Your task to perform on an android device: Search for vegetarian restaurants on Maps Image 0: 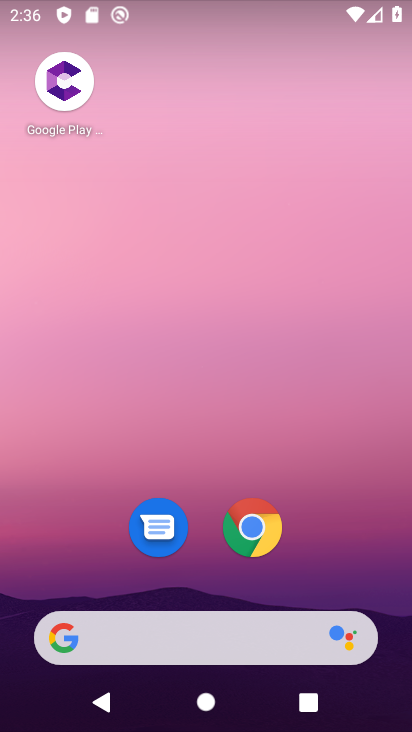
Step 0: drag from (247, 711) to (114, 155)
Your task to perform on an android device: Search for vegetarian restaurants on Maps Image 1: 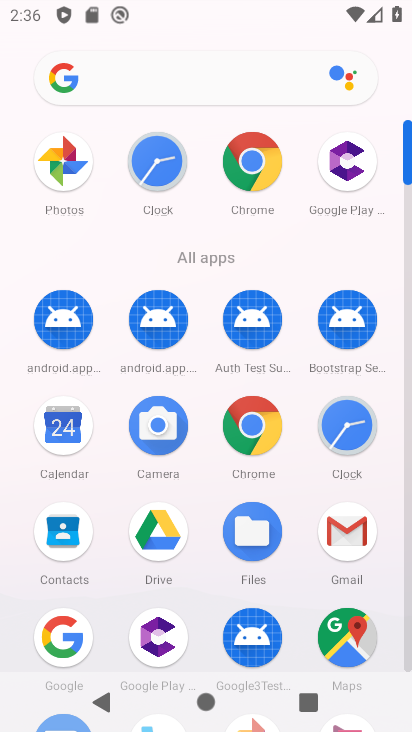
Step 1: click (361, 649)
Your task to perform on an android device: Search for vegetarian restaurants on Maps Image 2: 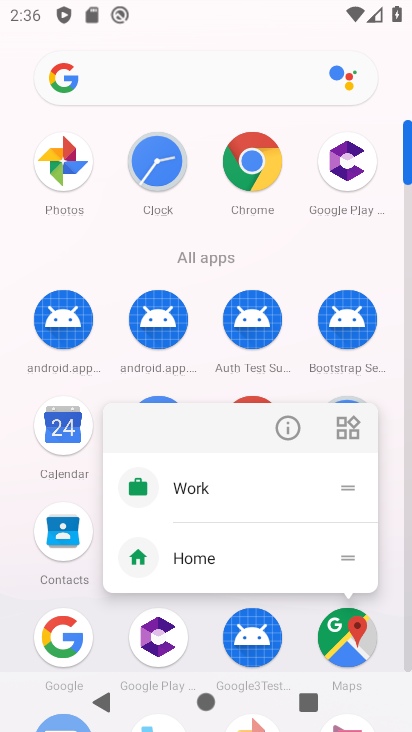
Step 2: click (350, 642)
Your task to perform on an android device: Search for vegetarian restaurants on Maps Image 3: 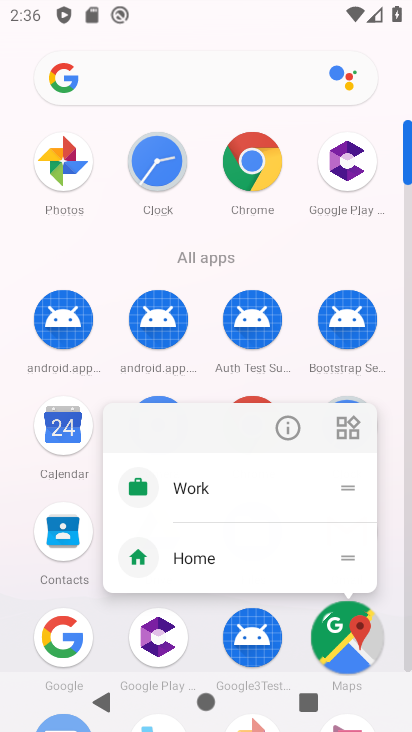
Step 3: click (350, 642)
Your task to perform on an android device: Search for vegetarian restaurants on Maps Image 4: 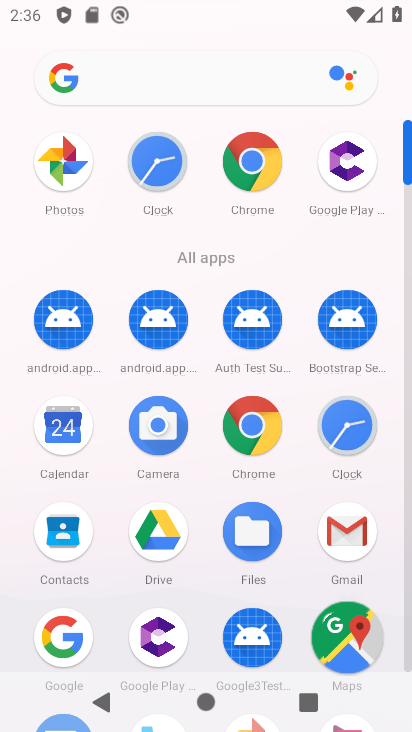
Step 4: click (349, 642)
Your task to perform on an android device: Search for vegetarian restaurants on Maps Image 5: 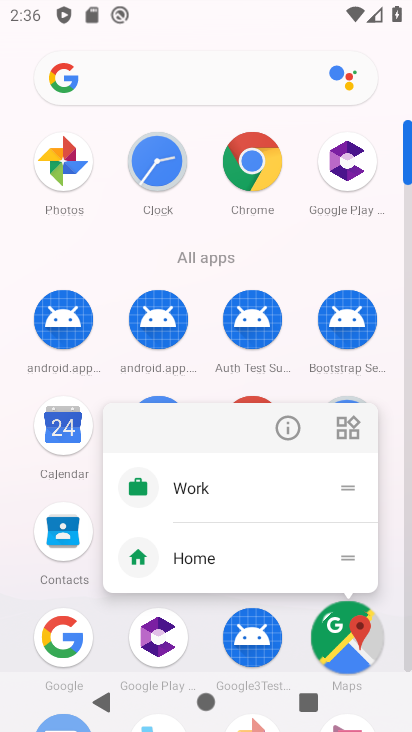
Step 5: click (345, 634)
Your task to perform on an android device: Search for vegetarian restaurants on Maps Image 6: 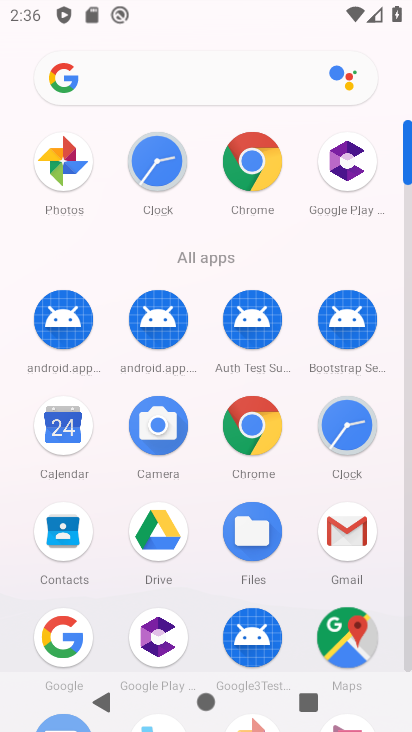
Step 6: click (345, 630)
Your task to perform on an android device: Search for vegetarian restaurants on Maps Image 7: 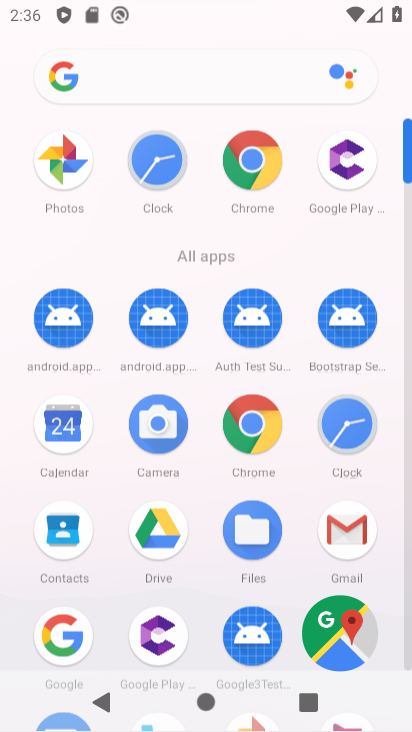
Step 7: click (345, 630)
Your task to perform on an android device: Search for vegetarian restaurants on Maps Image 8: 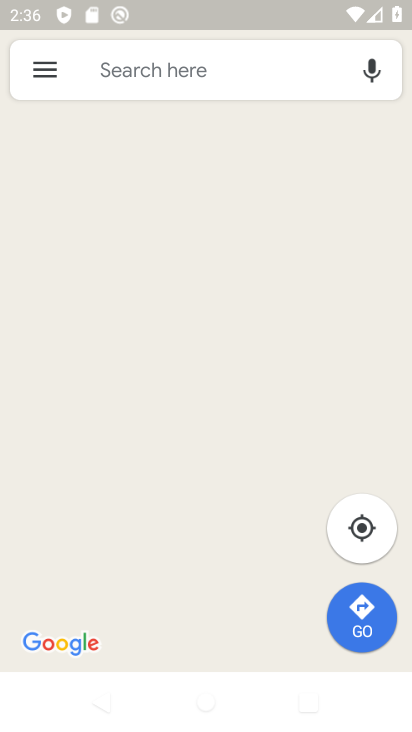
Step 8: click (113, 65)
Your task to perform on an android device: Search for vegetarian restaurants on Maps Image 9: 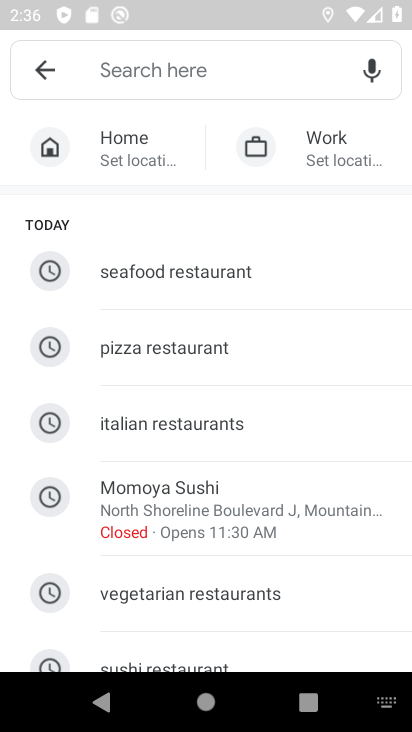
Step 9: type "vegetarian "
Your task to perform on an android device: Search for vegetarian restaurants on Maps Image 10: 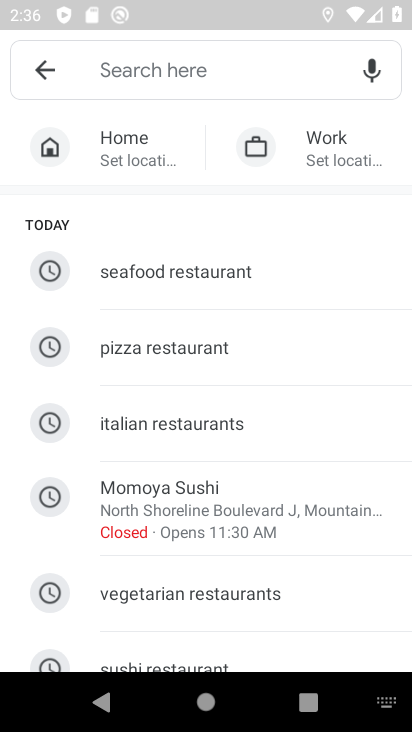
Step 10: click (190, 599)
Your task to perform on an android device: Search for vegetarian restaurants on Maps Image 11: 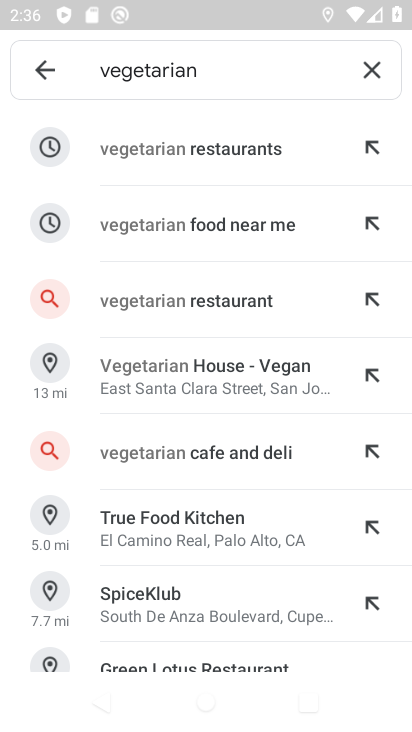
Step 11: click (166, 147)
Your task to perform on an android device: Search for vegetarian restaurants on Maps Image 12: 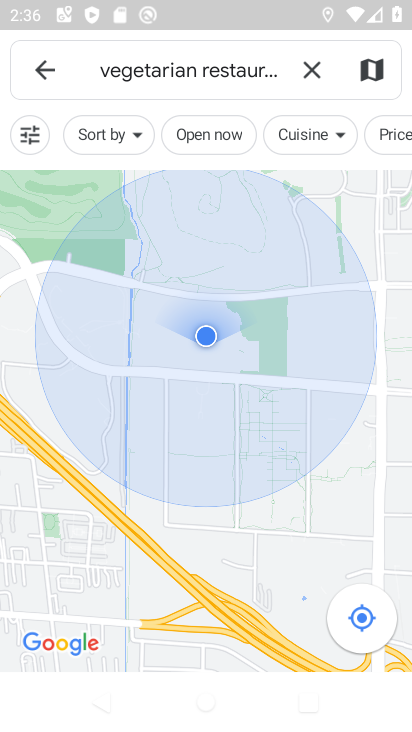
Step 12: task complete